Your task to perform on an android device: check storage Image 0: 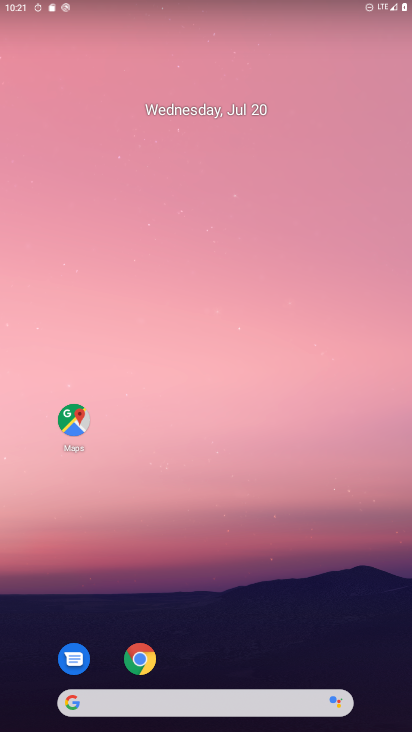
Step 0: drag from (309, 543) to (258, 0)
Your task to perform on an android device: check storage Image 1: 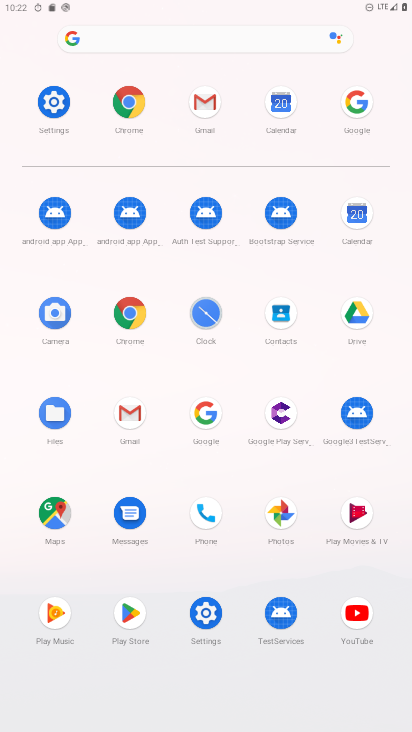
Step 1: click (52, 95)
Your task to perform on an android device: check storage Image 2: 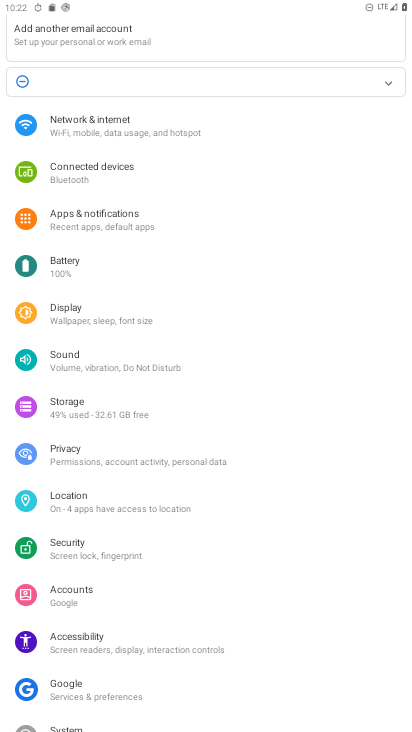
Step 2: click (130, 412)
Your task to perform on an android device: check storage Image 3: 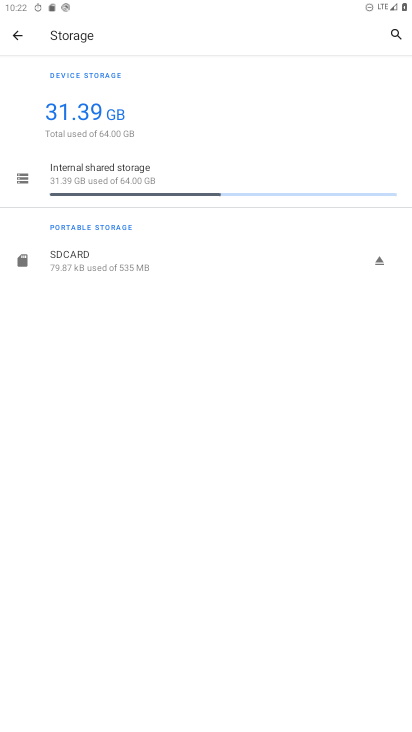
Step 3: task complete